Your task to perform on an android device: check the backup settings in the google photos Image 0: 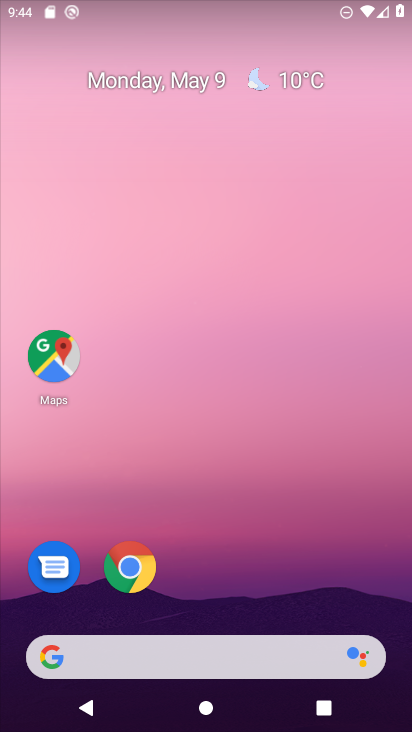
Step 0: drag from (210, 479) to (239, 51)
Your task to perform on an android device: check the backup settings in the google photos Image 1: 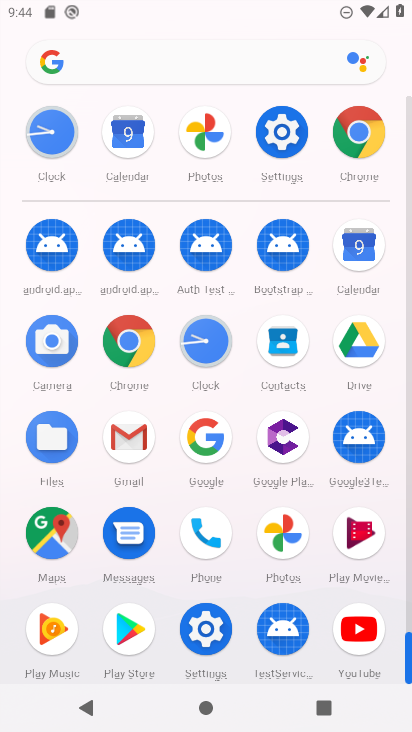
Step 1: click (286, 518)
Your task to perform on an android device: check the backup settings in the google photos Image 2: 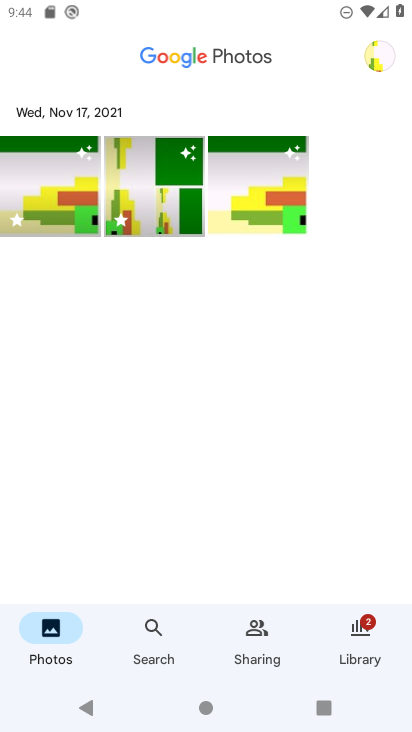
Step 2: click (374, 46)
Your task to perform on an android device: check the backup settings in the google photos Image 3: 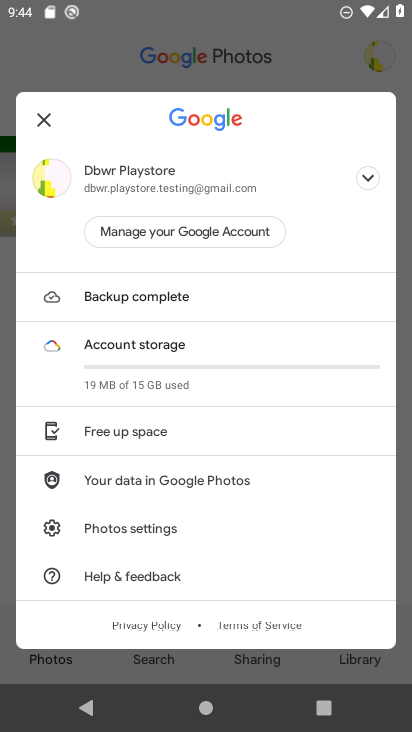
Step 3: click (223, 177)
Your task to perform on an android device: check the backup settings in the google photos Image 4: 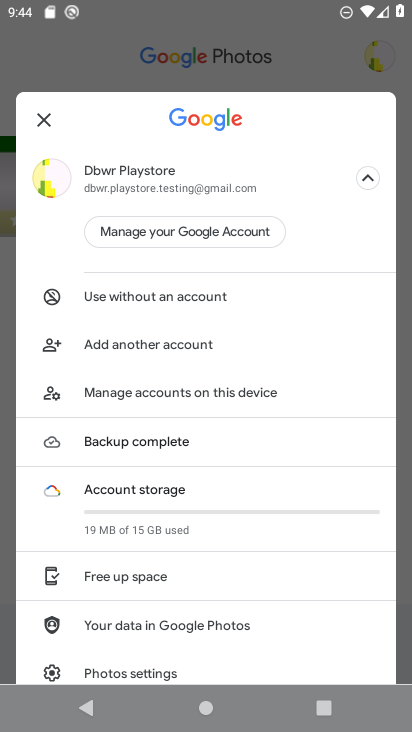
Step 4: click (138, 657)
Your task to perform on an android device: check the backup settings in the google photos Image 5: 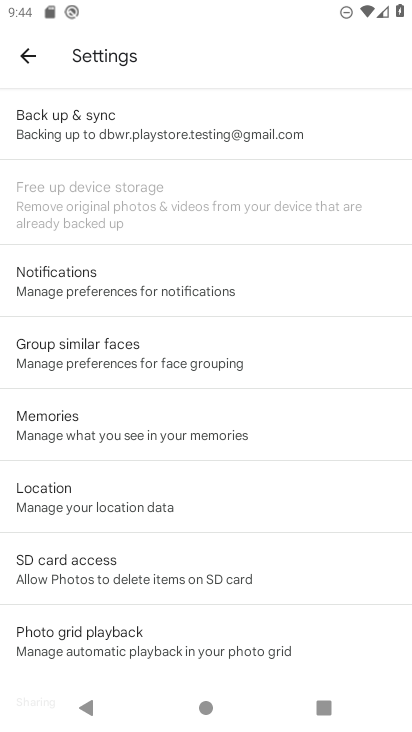
Step 5: click (129, 104)
Your task to perform on an android device: check the backup settings in the google photos Image 6: 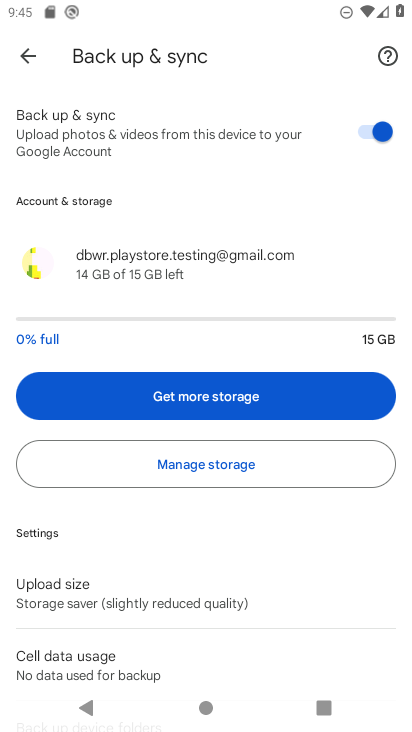
Step 6: click (119, 583)
Your task to perform on an android device: check the backup settings in the google photos Image 7: 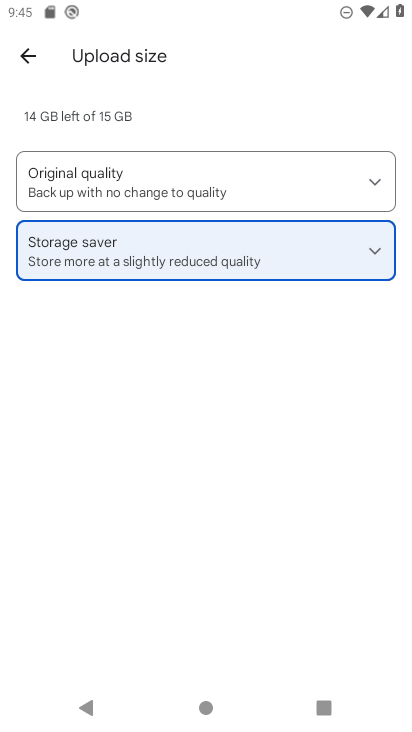
Step 7: task complete